Your task to perform on an android device: Search for macbook pro on amazon, select the first entry, and add it to the cart. Image 0: 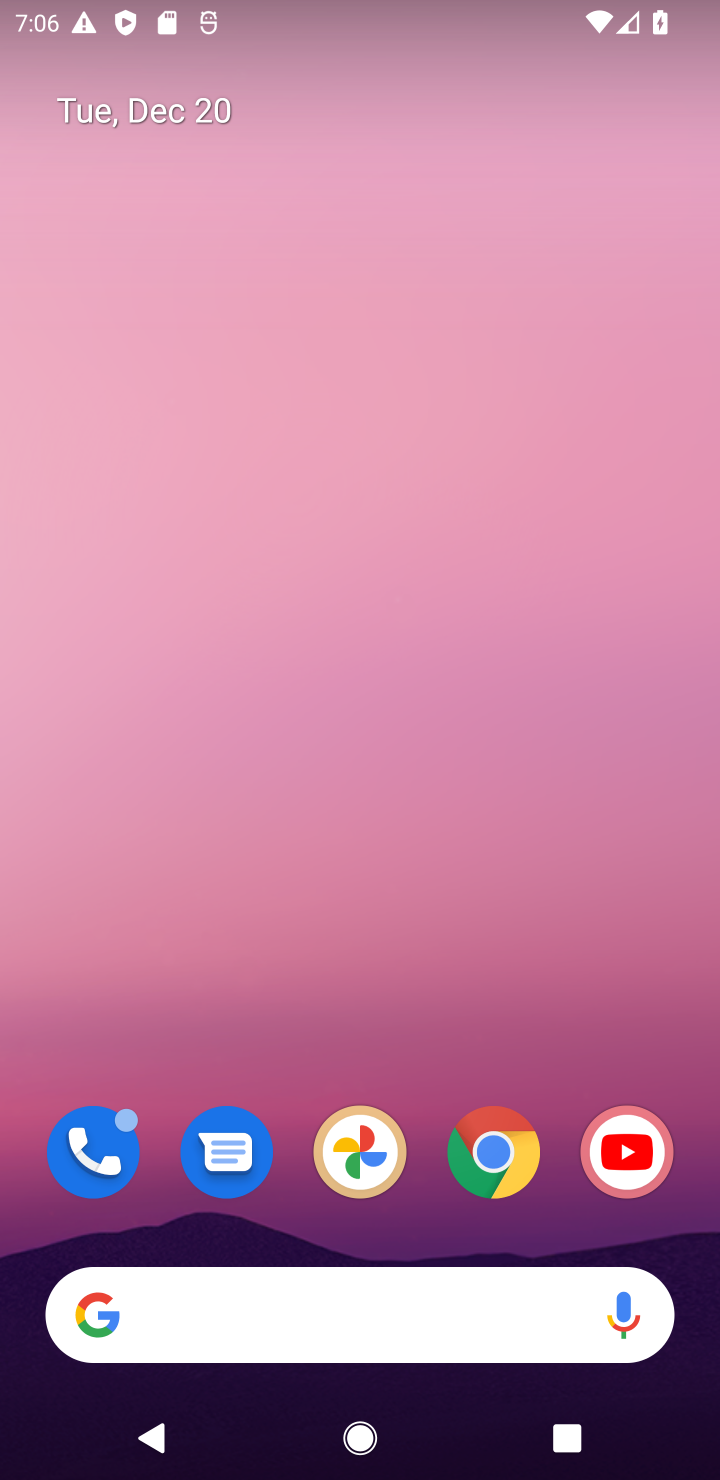
Step 0: click (515, 1161)
Your task to perform on an android device: Search for macbook pro on amazon, select the first entry, and add it to the cart. Image 1: 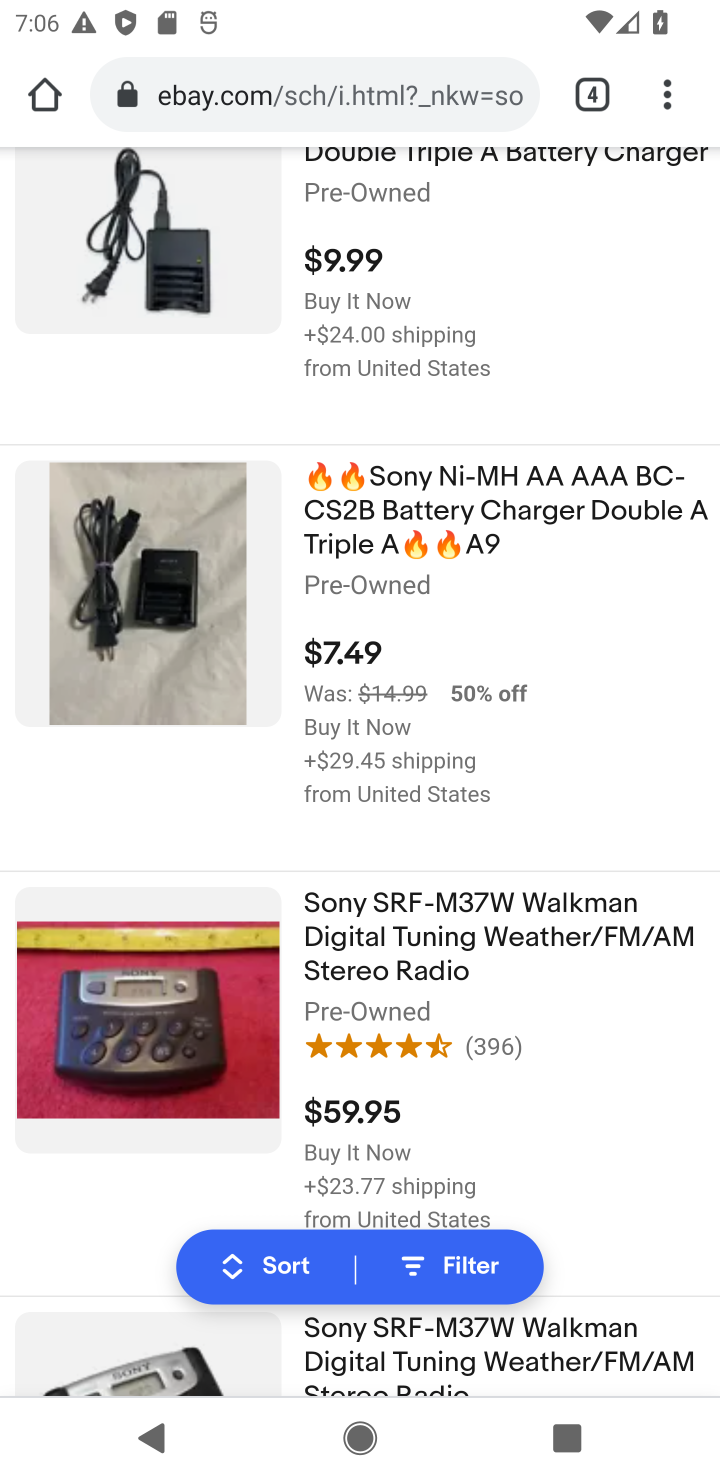
Step 1: click (590, 84)
Your task to perform on an android device: Search for macbook pro on amazon, select the first entry, and add it to the cart. Image 2: 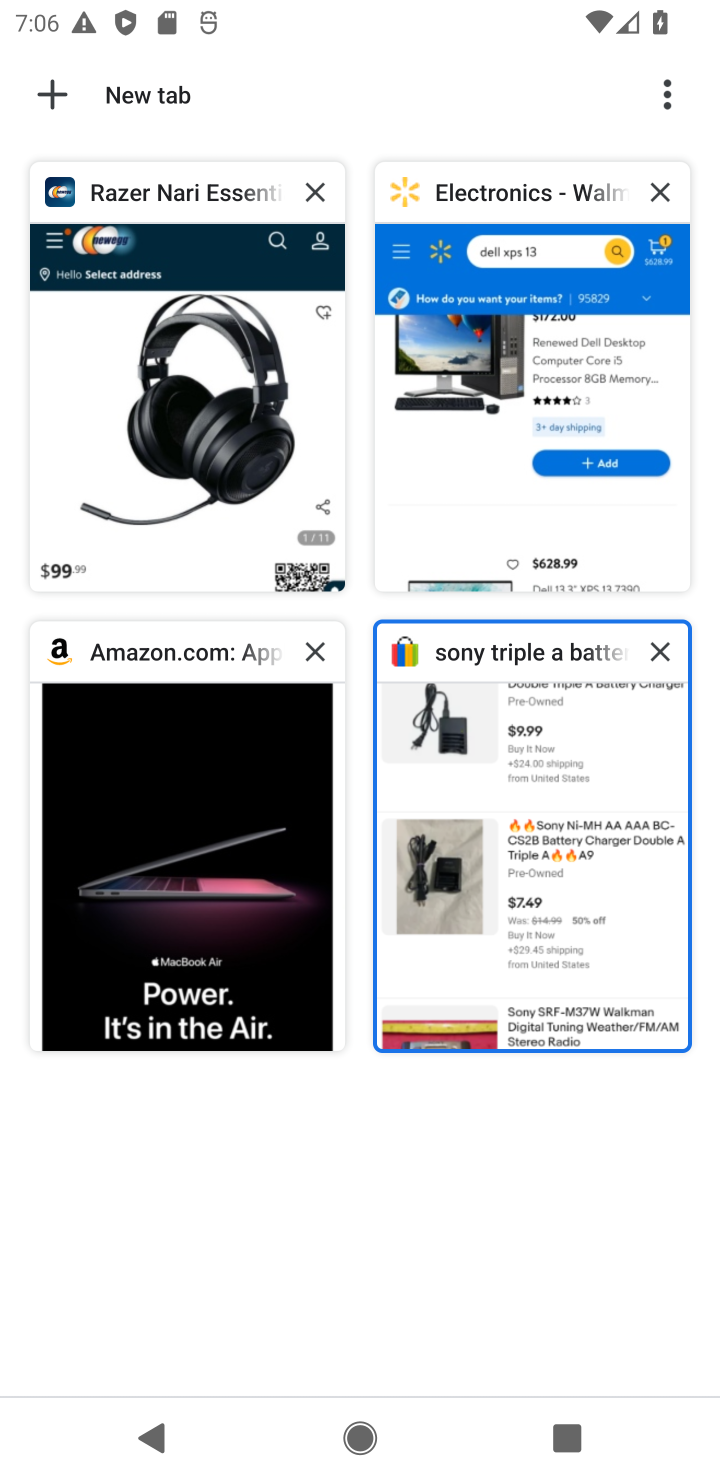
Step 2: click (165, 697)
Your task to perform on an android device: Search for macbook pro on amazon, select the first entry, and add it to the cart. Image 3: 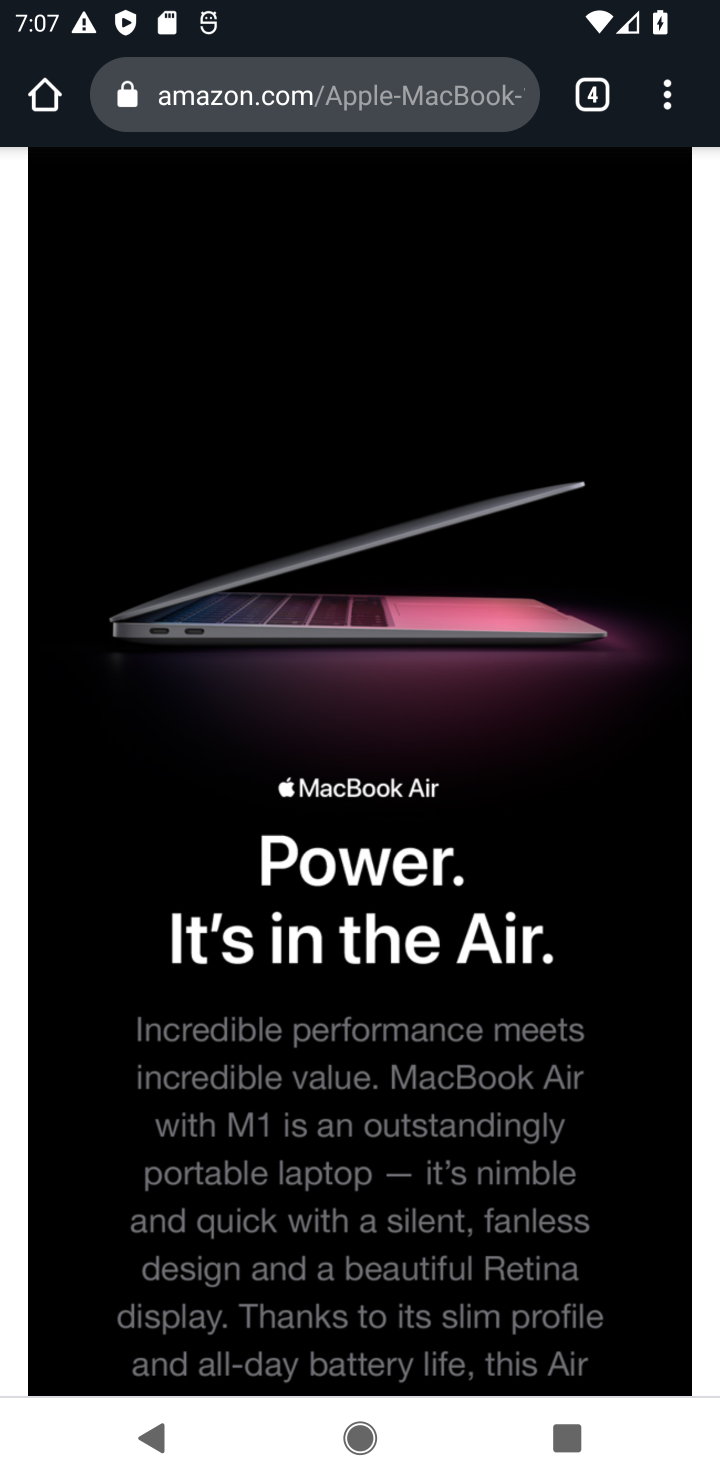
Step 3: press back button
Your task to perform on an android device: Search for macbook pro on amazon, select the first entry, and add it to the cart. Image 4: 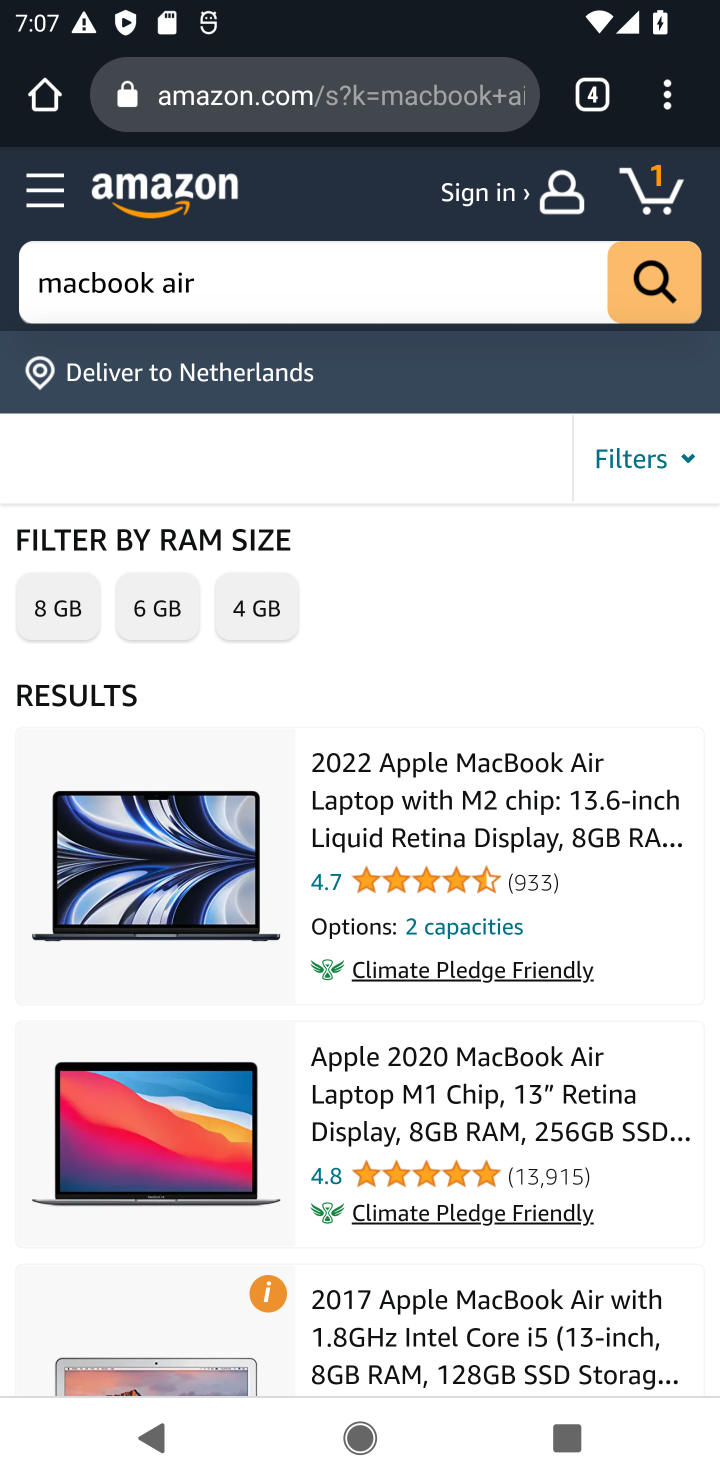
Step 4: click (216, 287)
Your task to perform on an android device: Search for macbook pro on amazon, select the first entry, and add it to the cart. Image 5: 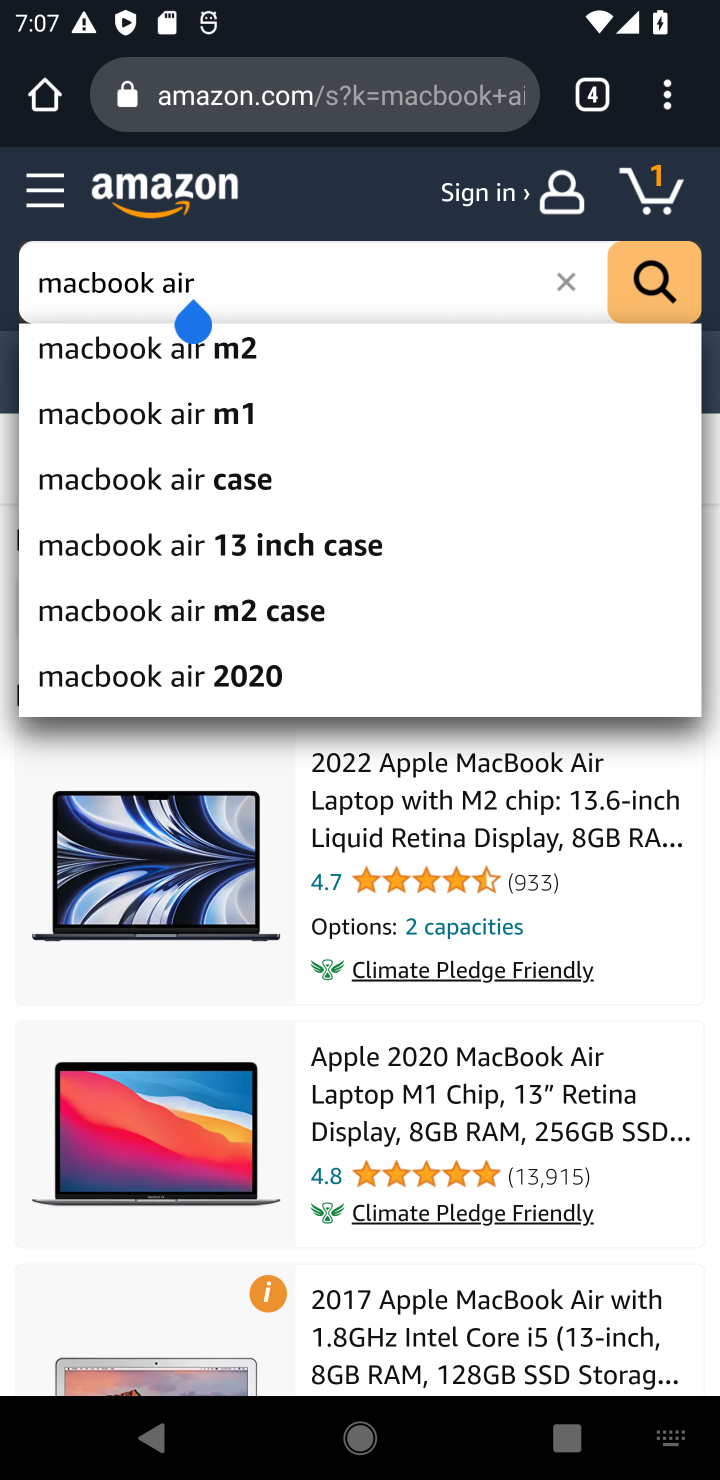
Step 5: click (583, 278)
Your task to perform on an android device: Search for macbook pro on amazon, select the first entry, and add it to the cart. Image 6: 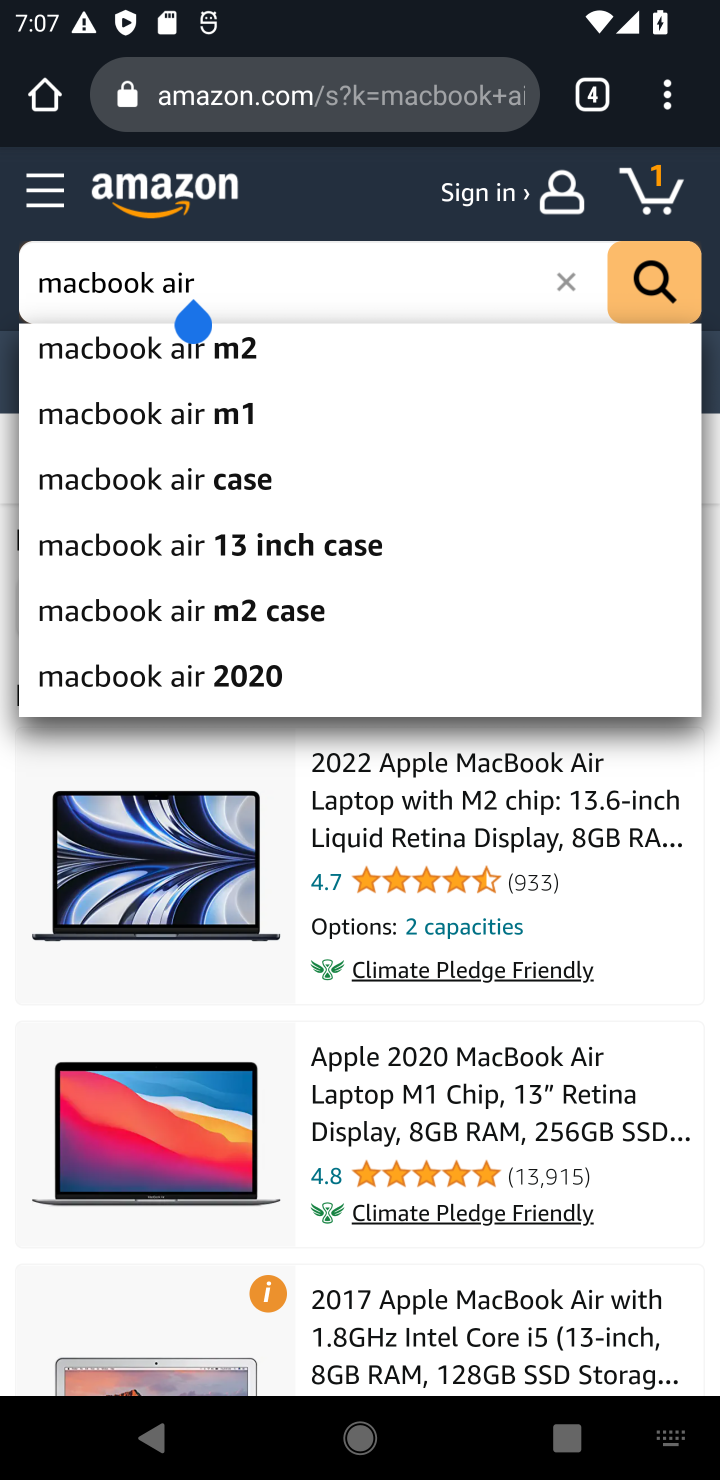
Step 6: type "macbook pro"
Your task to perform on an android device: Search for macbook pro on amazon, select the first entry, and add it to the cart. Image 7: 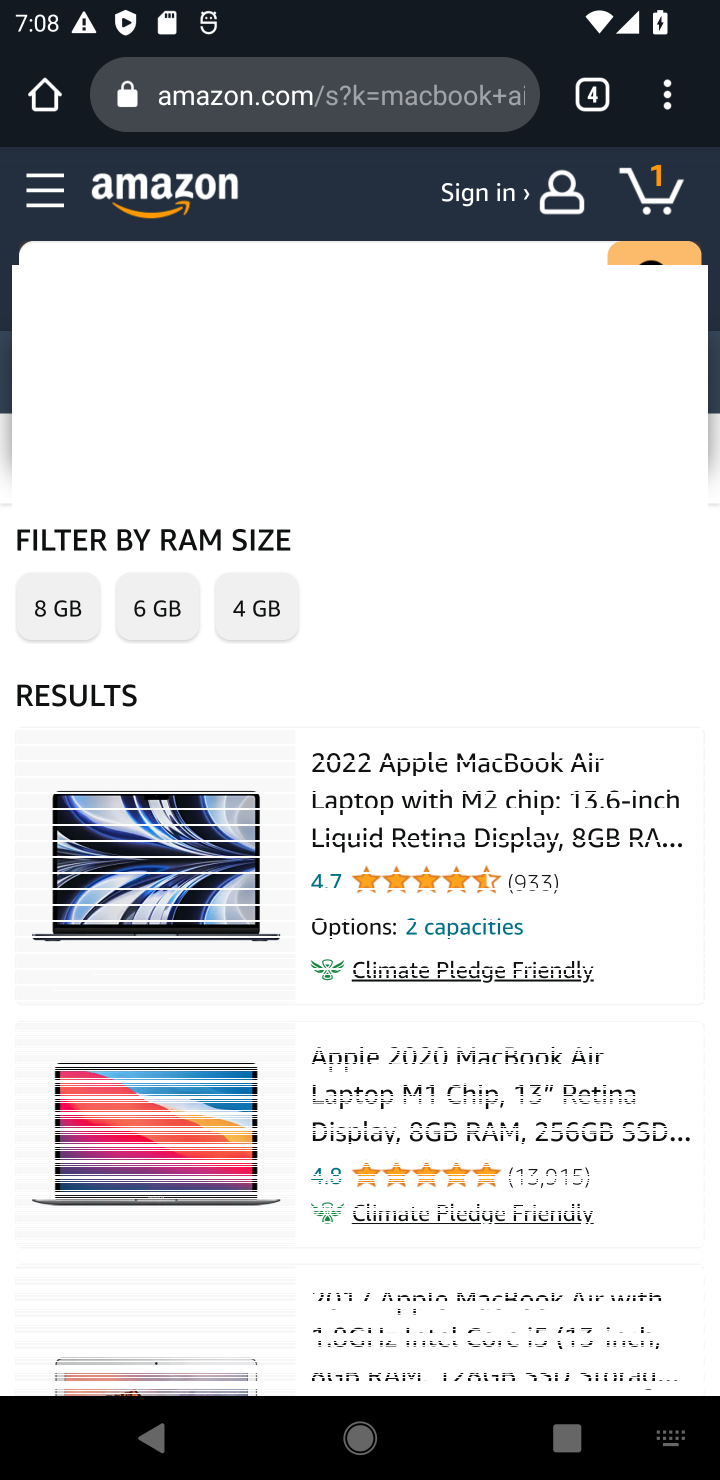
Step 7: click (569, 278)
Your task to perform on an android device: Search for macbook pro on amazon, select the first entry, and add it to the cart. Image 8: 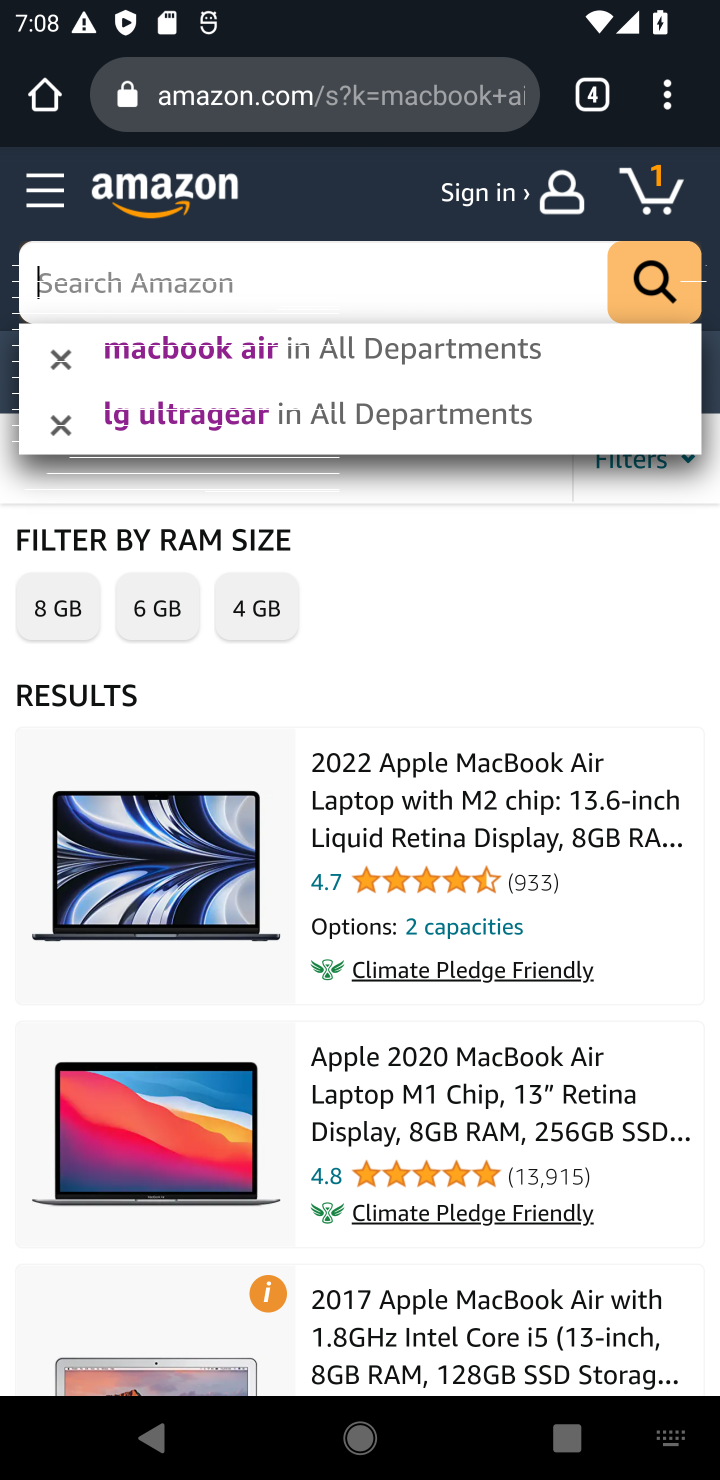
Step 8: type "macbook pro"
Your task to perform on an android device: Search for macbook pro on amazon, select the first entry, and add it to the cart. Image 9: 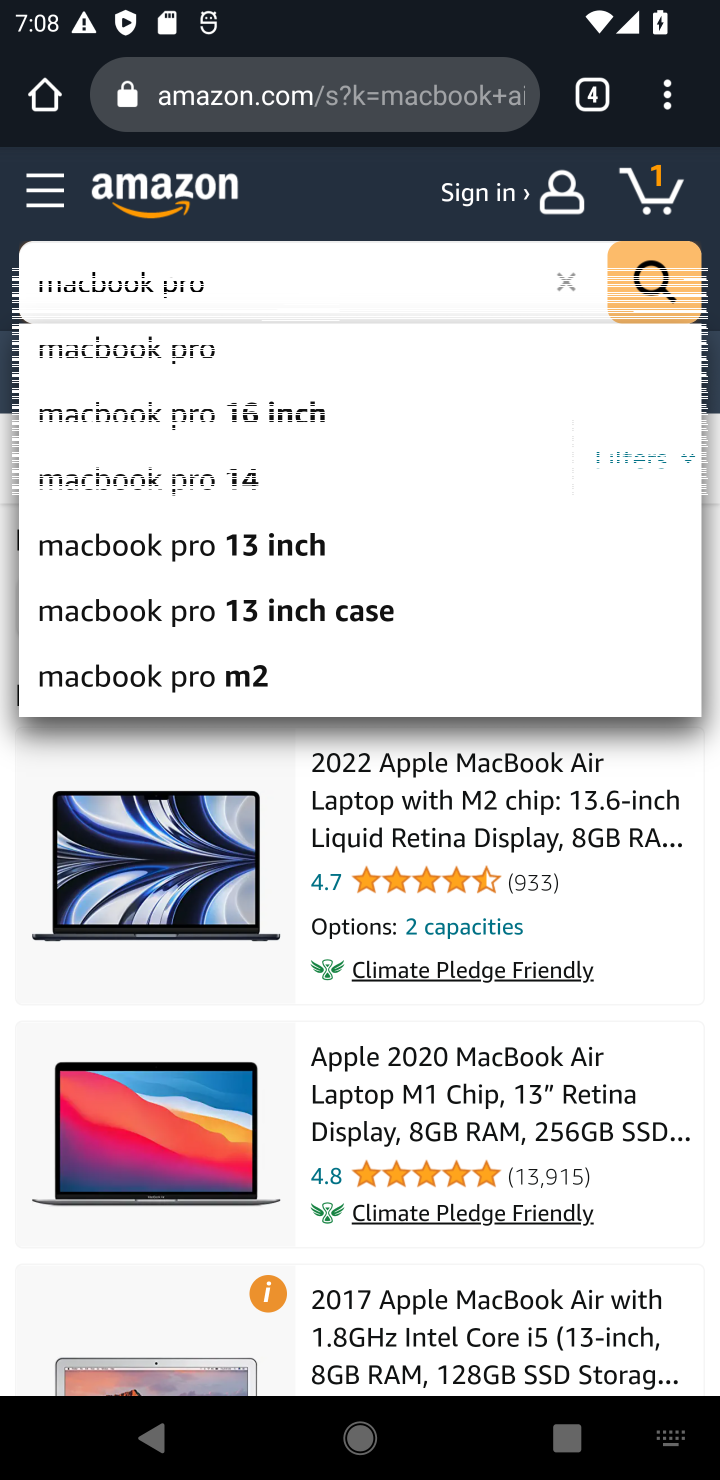
Step 9: click (95, 346)
Your task to perform on an android device: Search for macbook pro on amazon, select the first entry, and add it to the cart. Image 10: 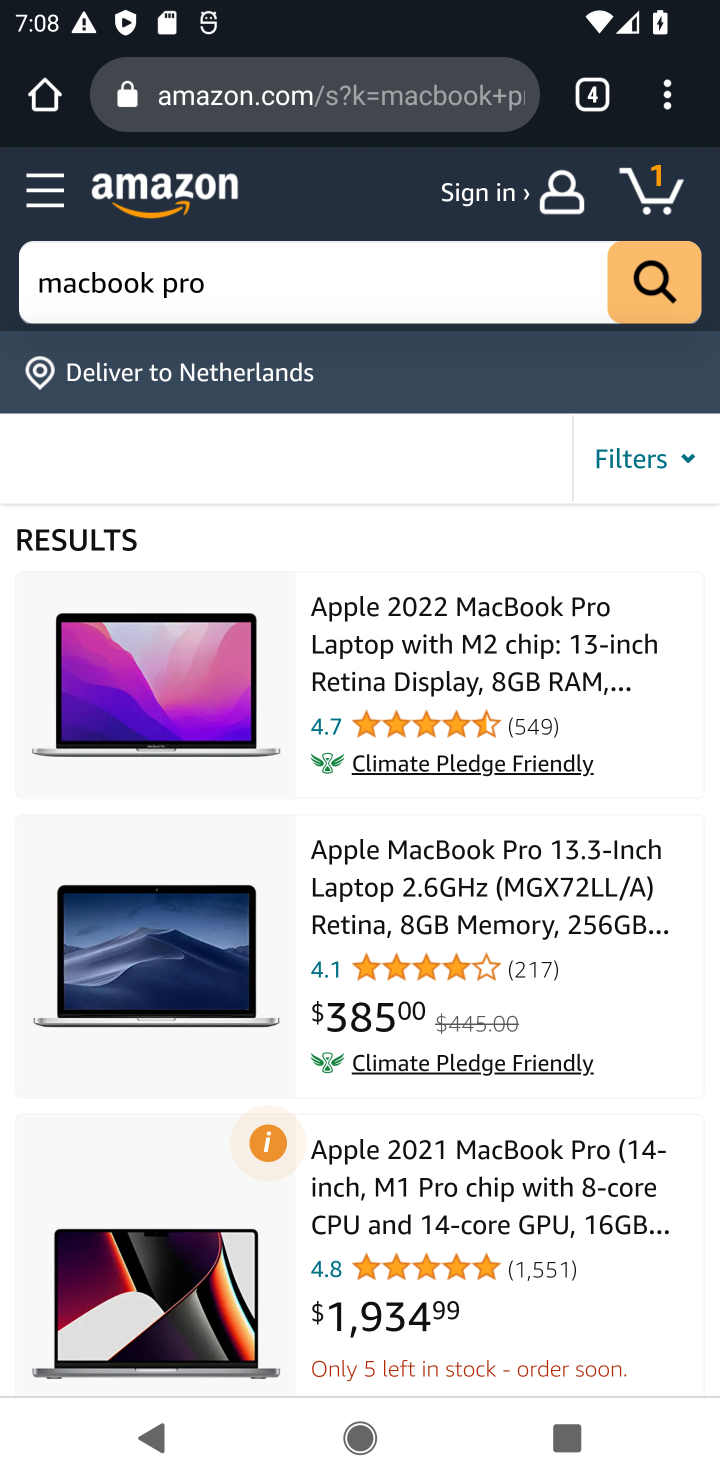
Step 10: click (486, 619)
Your task to perform on an android device: Search for macbook pro on amazon, select the first entry, and add it to the cart. Image 11: 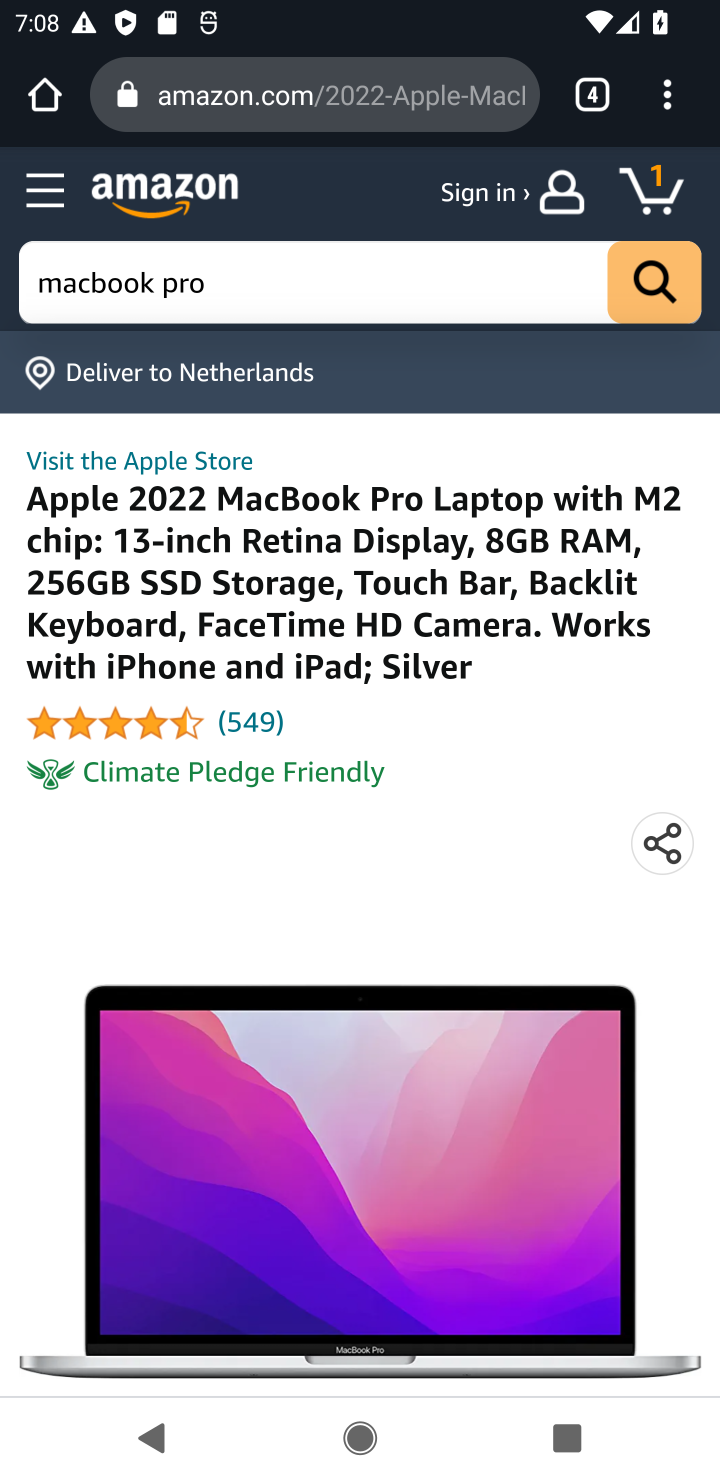
Step 11: drag from (519, 975) to (575, 371)
Your task to perform on an android device: Search for macbook pro on amazon, select the first entry, and add it to the cart. Image 12: 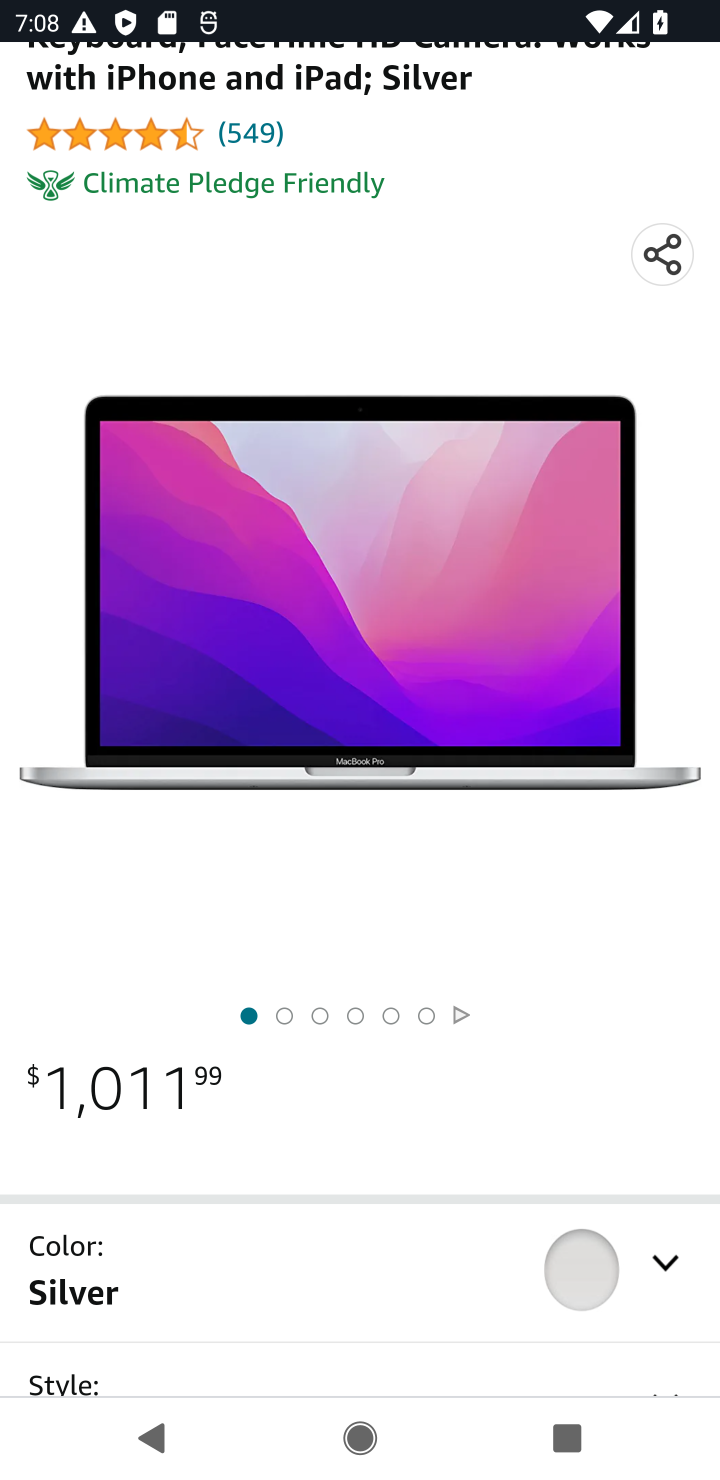
Step 12: drag from (321, 1106) to (423, 673)
Your task to perform on an android device: Search for macbook pro on amazon, select the first entry, and add it to the cart. Image 13: 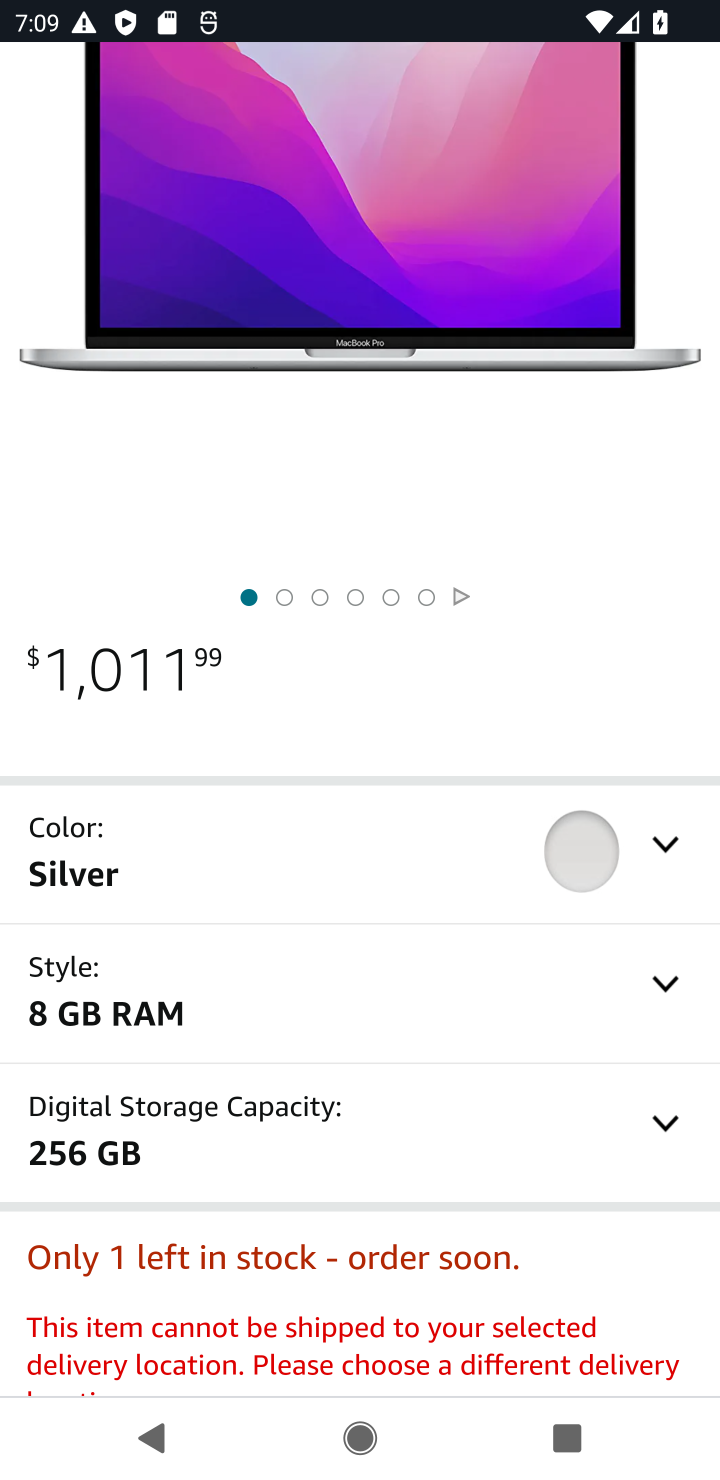
Step 13: drag from (333, 1150) to (460, 503)
Your task to perform on an android device: Search for macbook pro on amazon, select the first entry, and add it to the cart. Image 14: 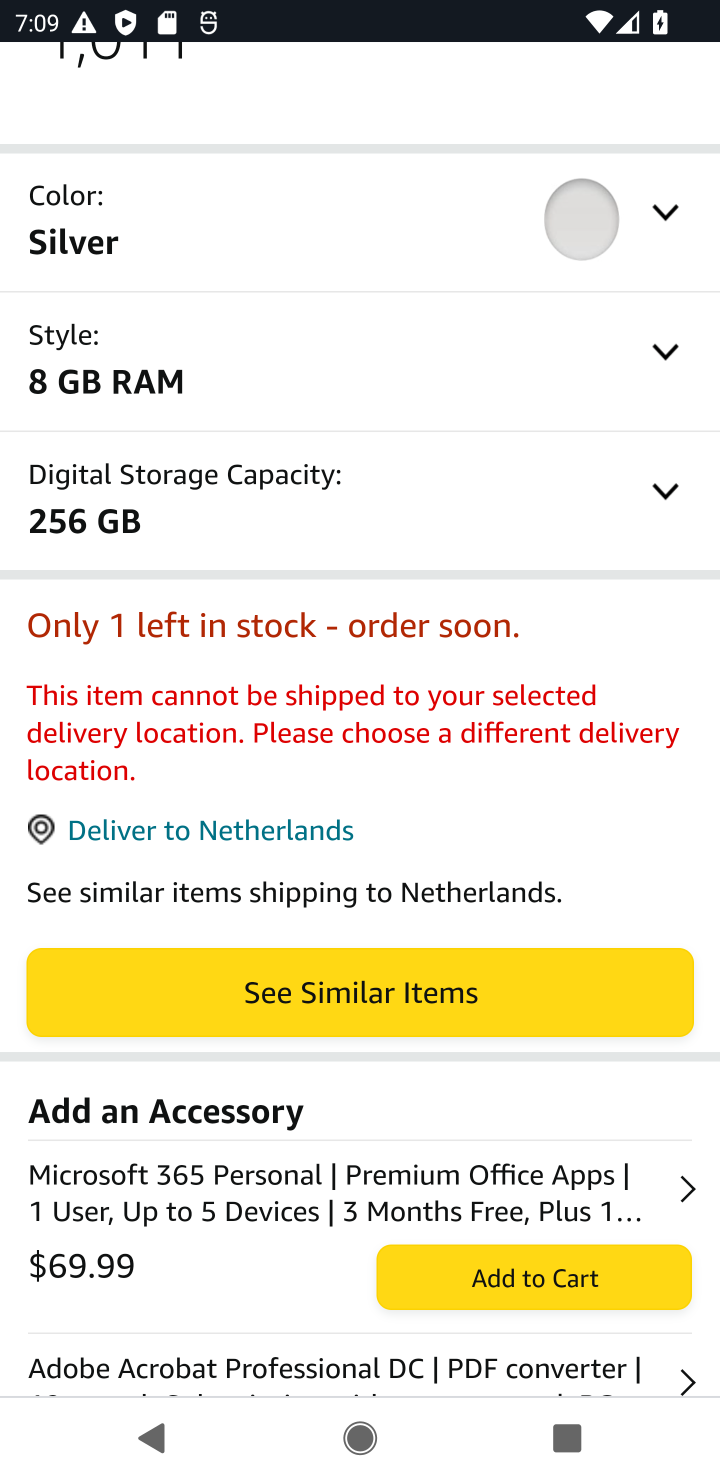
Step 14: drag from (305, 1058) to (349, 559)
Your task to perform on an android device: Search for macbook pro on amazon, select the first entry, and add it to the cart. Image 15: 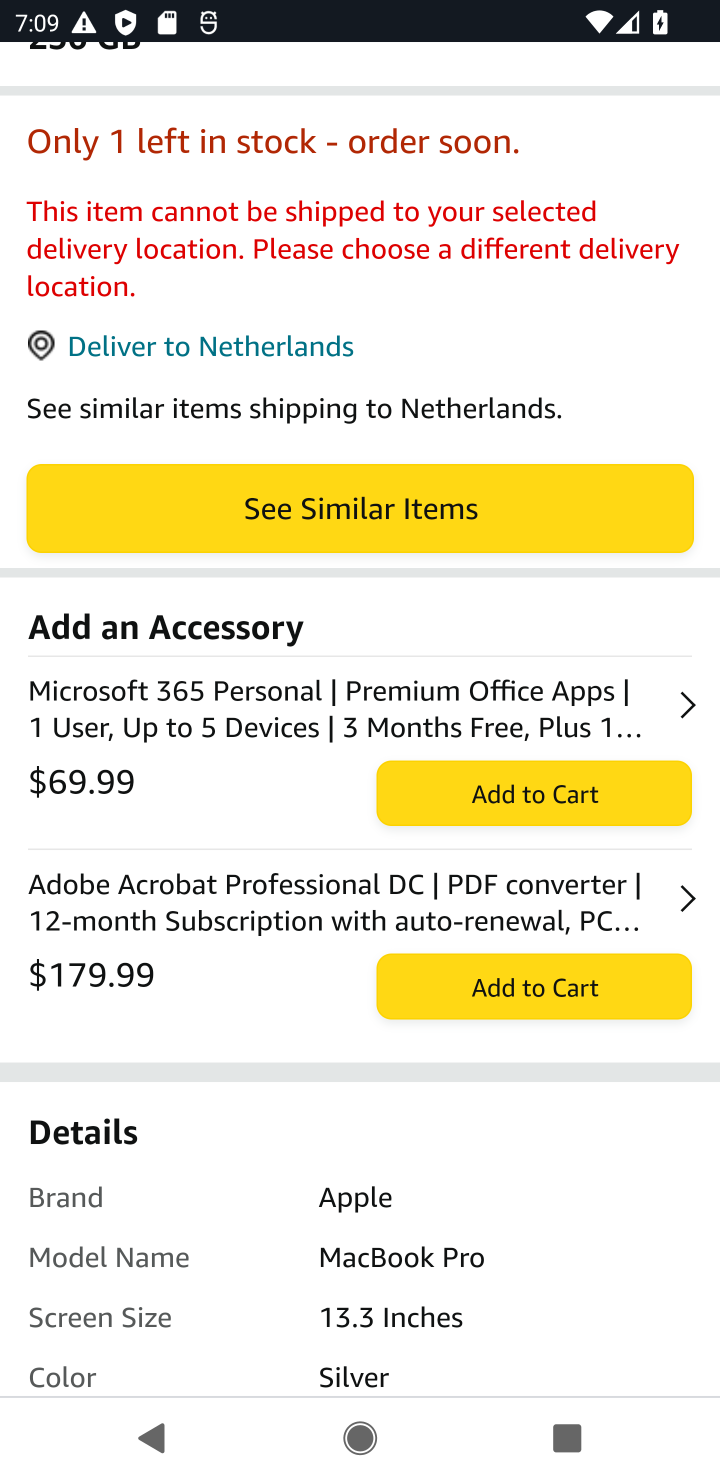
Step 15: click (380, 516)
Your task to perform on an android device: Search for macbook pro on amazon, select the first entry, and add it to the cart. Image 16: 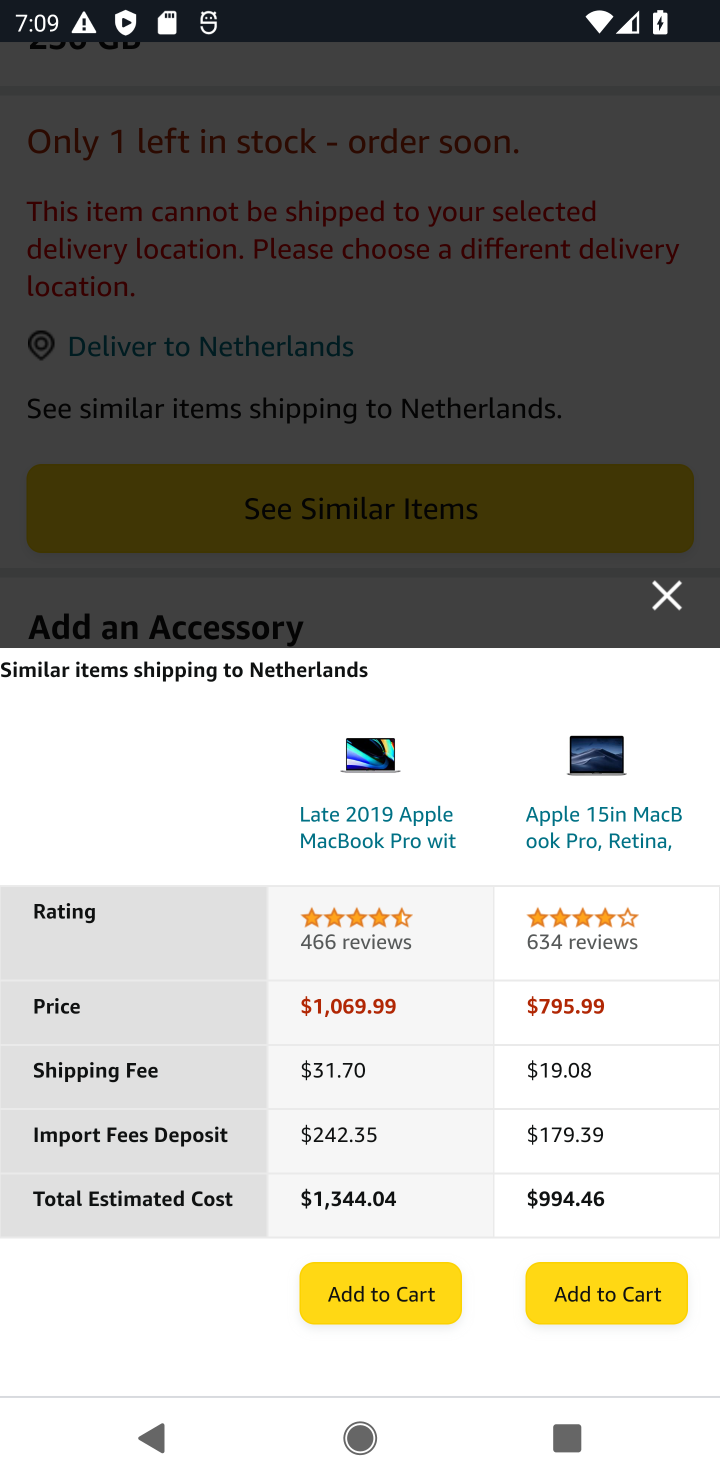
Step 16: click (597, 1288)
Your task to perform on an android device: Search for macbook pro on amazon, select the first entry, and add it to the cart. Image 17: 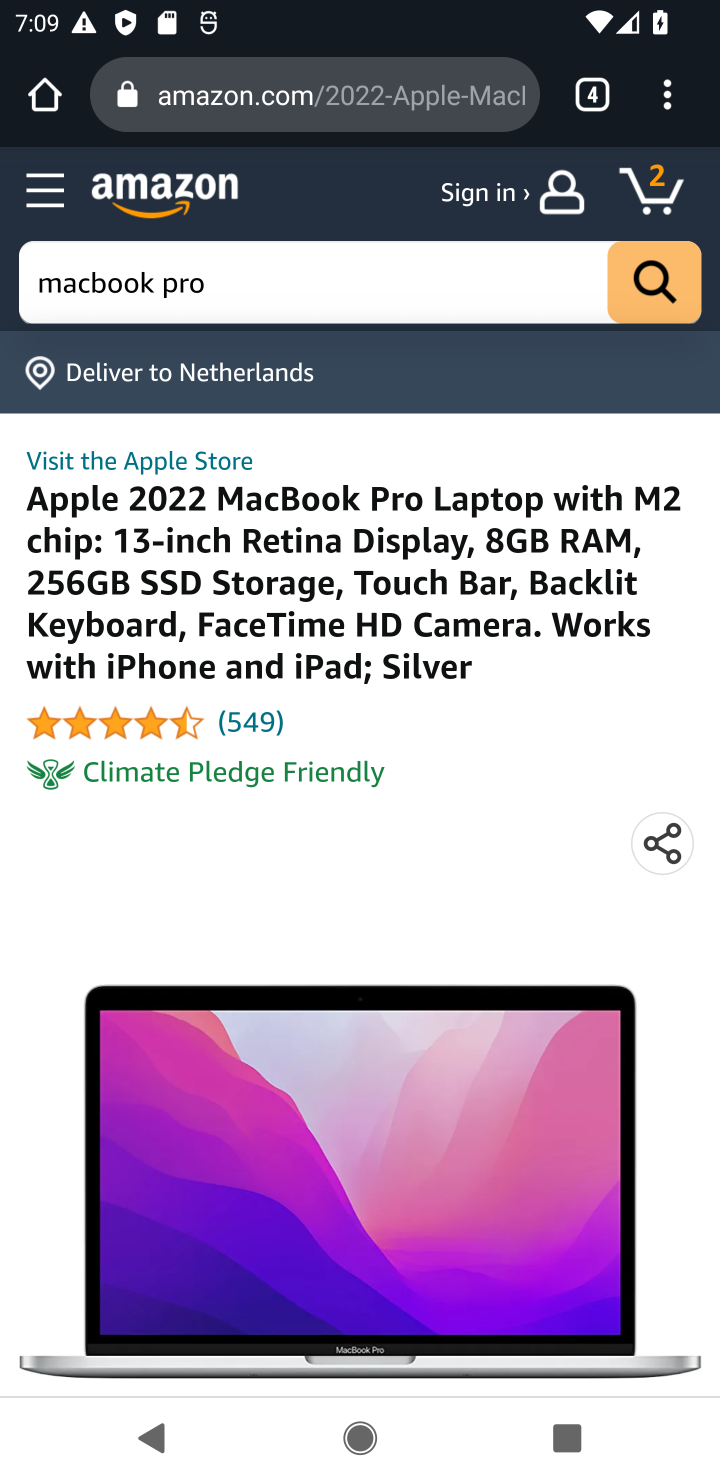
Step 17: click (658, 198)
Your task to perform on an android device: Search for macbook pro on amazon, select the first entry, and add it to the cart. Image 18: 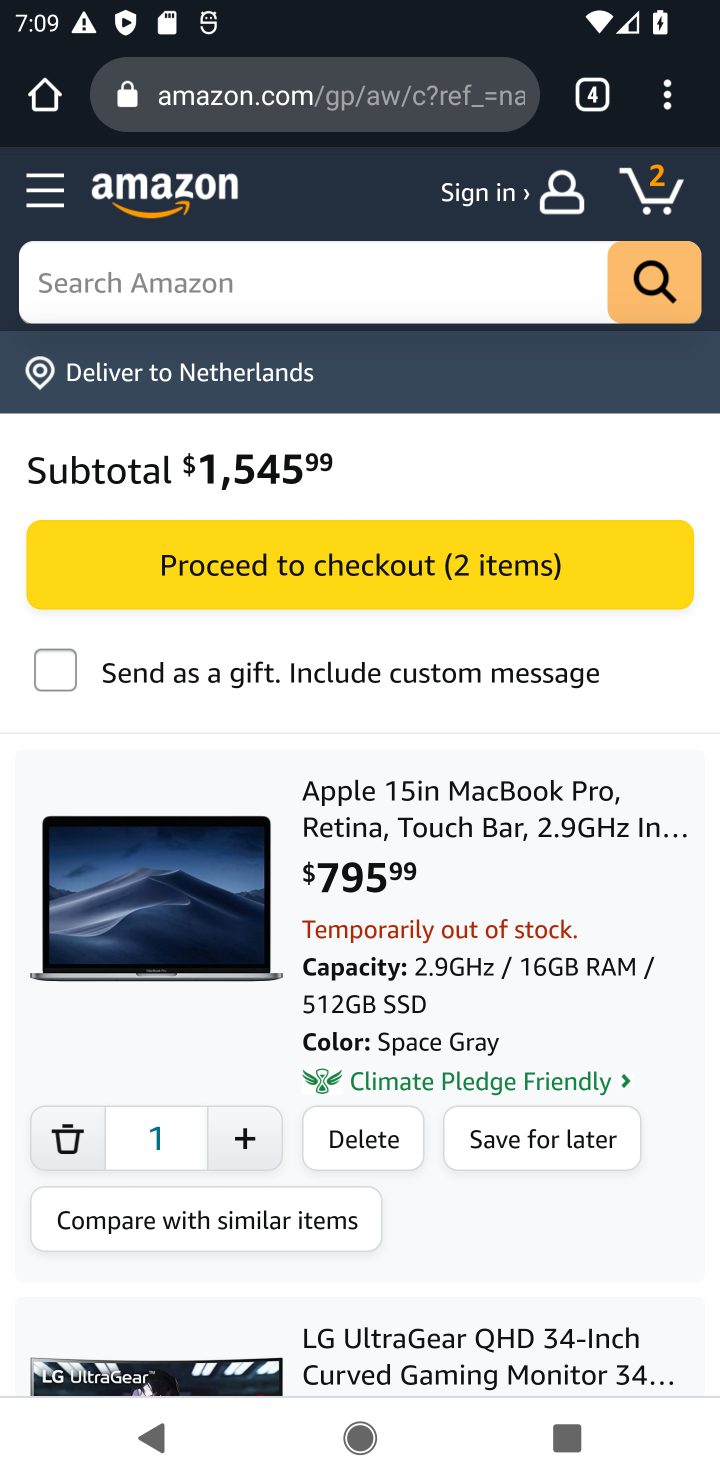
Step 18: task complete